Your task to perform on an android device: turn off javascript in the chrome app Image 0: 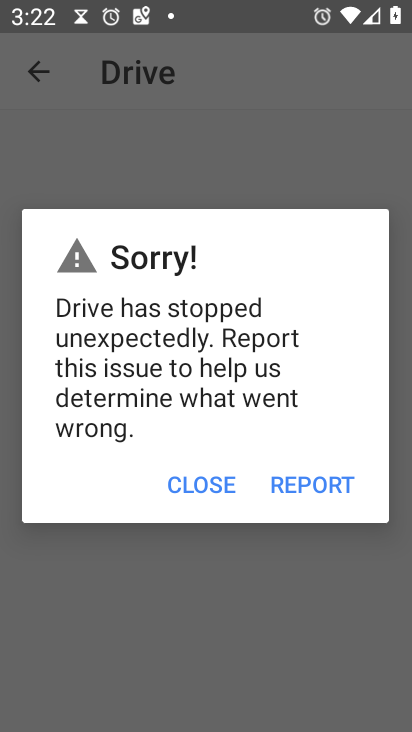
Step 0: press home button
Your task to perform on an android device: turn off javascript in the chrome app Image 1: 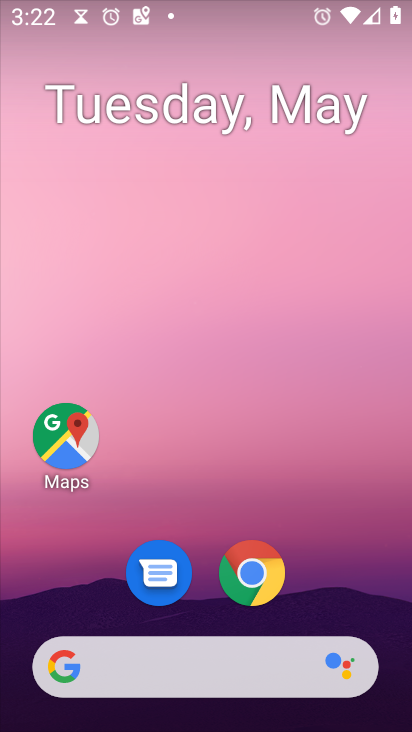
Step 1: drag from (350, 602) to (252, 68)
Your task to perform on an android device: turn off javascript in the chrome app Image 2: 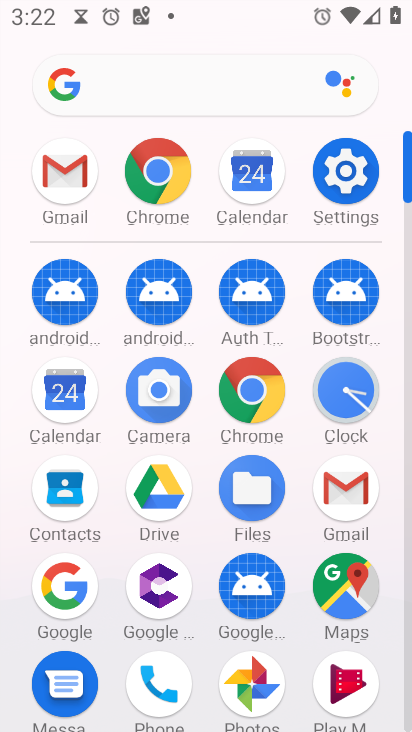
Step 2: click (164, 172)
Your task to perform on an android device: turn off javascript in the chrome app Image 3: 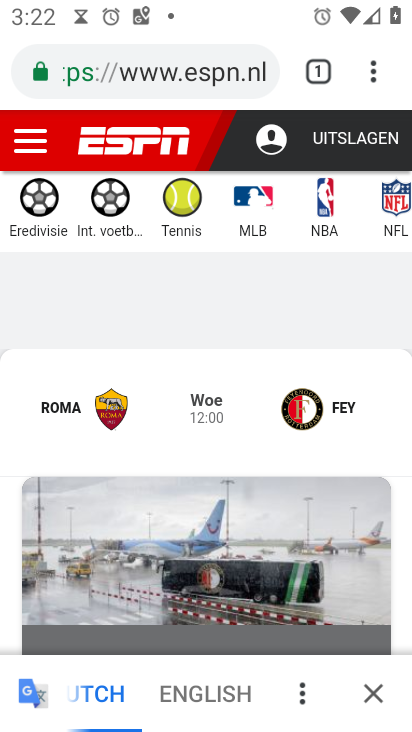
Step 3: drag from (371, 66) to (133, 552)
Your task to perform on an android device: turn off javascript in the chrome app Image 4: 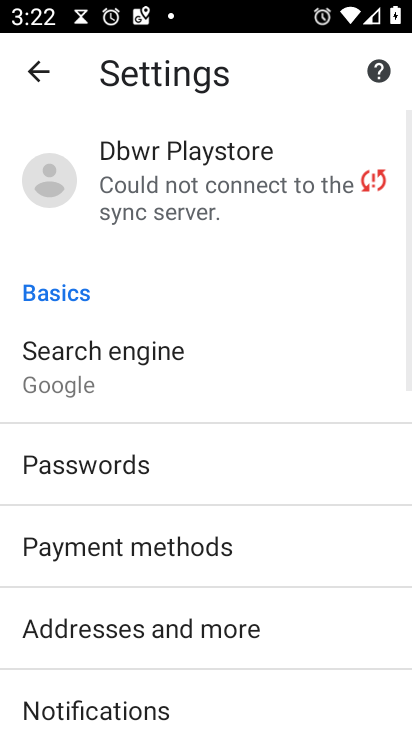
Step 4: drag from (255, 611) to (267, 226)
Your task to perform on an android device: turn off javascript in the chrome app Image 5: 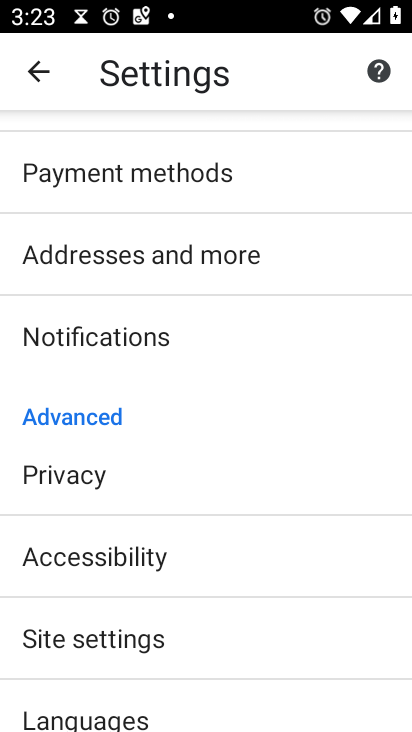
Step 5: click (144, 621)
Your task to perform on an android device: turn off javascript in the chrome app Image 6: 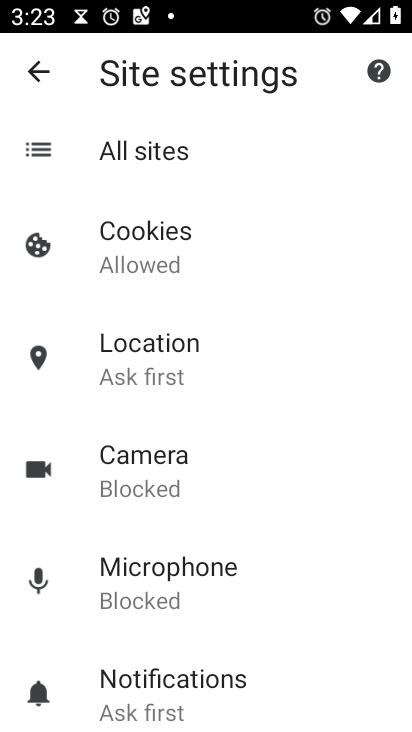
Step 6: drag from (231, 596) to (252, 276)
Your task to perform on an android device: turn off javascript in the chrome app Image 7: 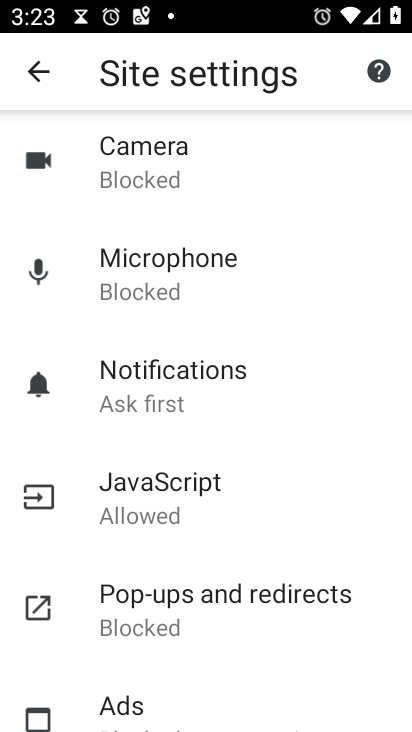
Step 7: drag from (226, 621) to (246, 219)
Your task to perform on an android device: turn off javascript in the chrome app Image 8: 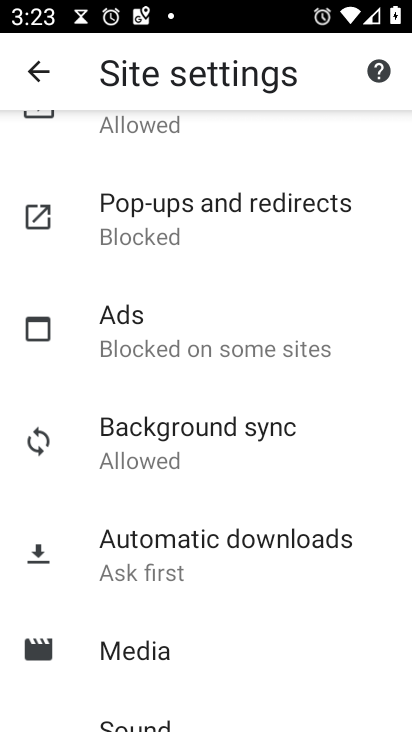
Step 8: drag from (231, 596) to (241, 198)
Your task to perform on an android device: turn off javascript in the chrome app Image 9: 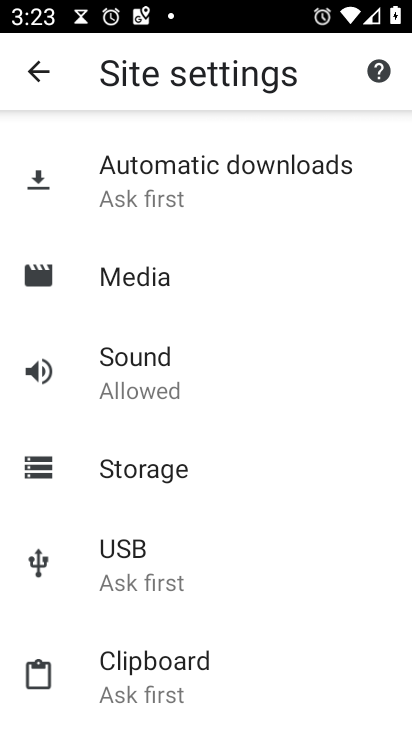
Step 9: drag from (279, 574) to (281, 152)
Your task to perform on an android device: turn off javascript in the chrome app Image 10: 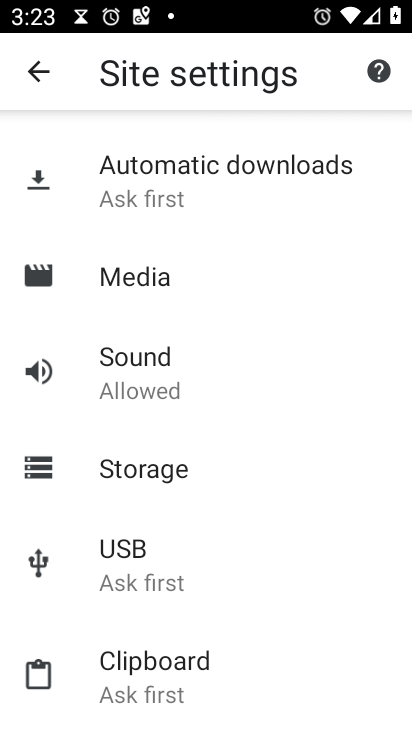
Step 10: drag from (282, 223) to (264, 672)
Your task to perform on an android device: turn off javascript in the chrome app Image 11: 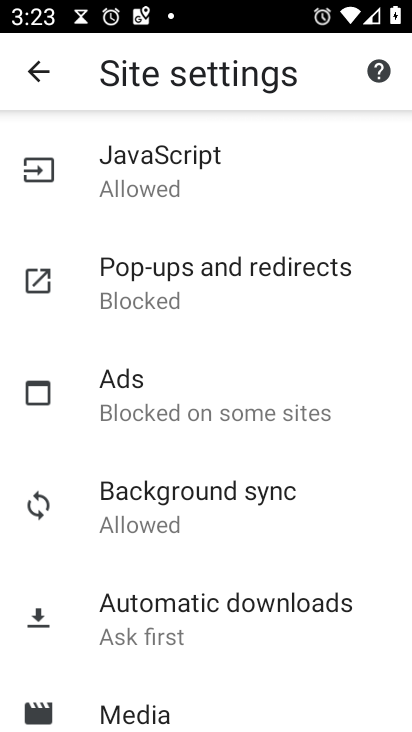
Step 11: drag from (238, 255) to (244, 554)
Your task to perform on an android device: turn off javascript in the chrome app Image 12: 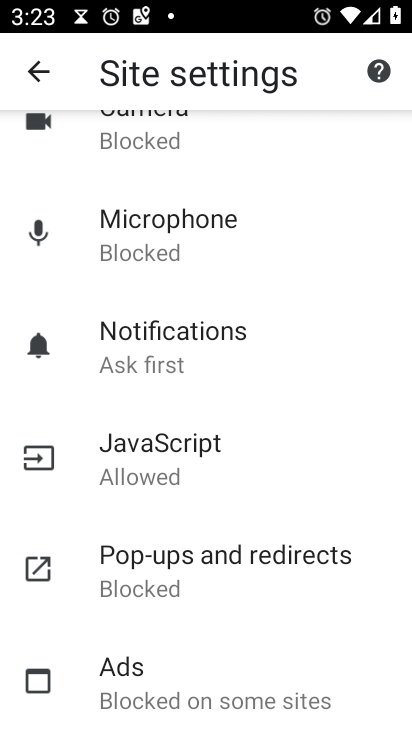
Step 12: drag from (203, 211) to (229, 256)
Your task to perform on an android device: turn off javascript in the chrome app Image 13: 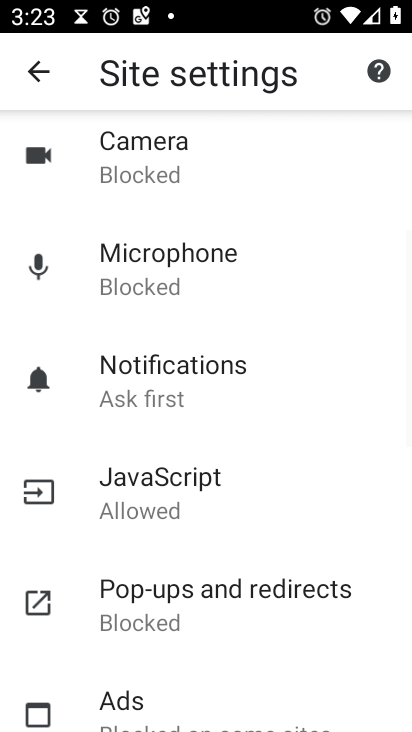
Step 13: click (192, 477)
Your task to perform on an android device: turn off javascript in the chrome app Image 14: 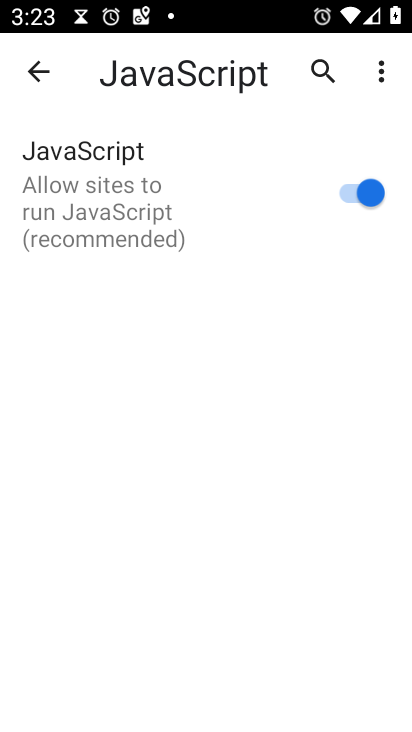
Step 14: click (369, 194)
Your task to perform on an android device: turn off javascript in the chrome app Image 15: 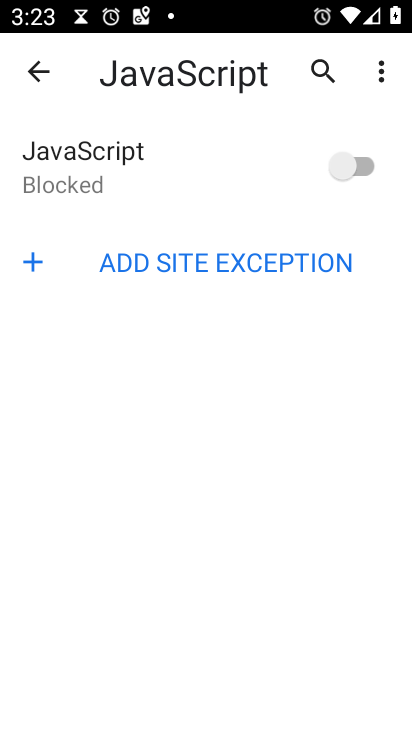
Step 15: task complete